Your task to perform on an android device: How much does a 2 bedroom apartment rent for in Denver? Image 0: 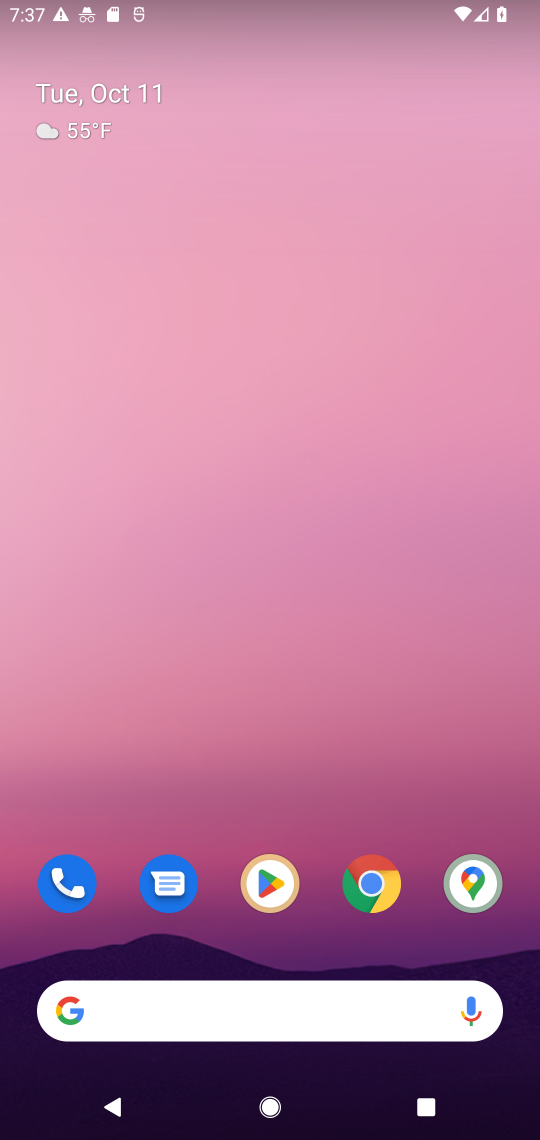
Step 0: drag from (312, 968) to (246, 41)
Your task to perform on an android device: How much does a 2 bedroom apartment rent for in Denver? Image 1: 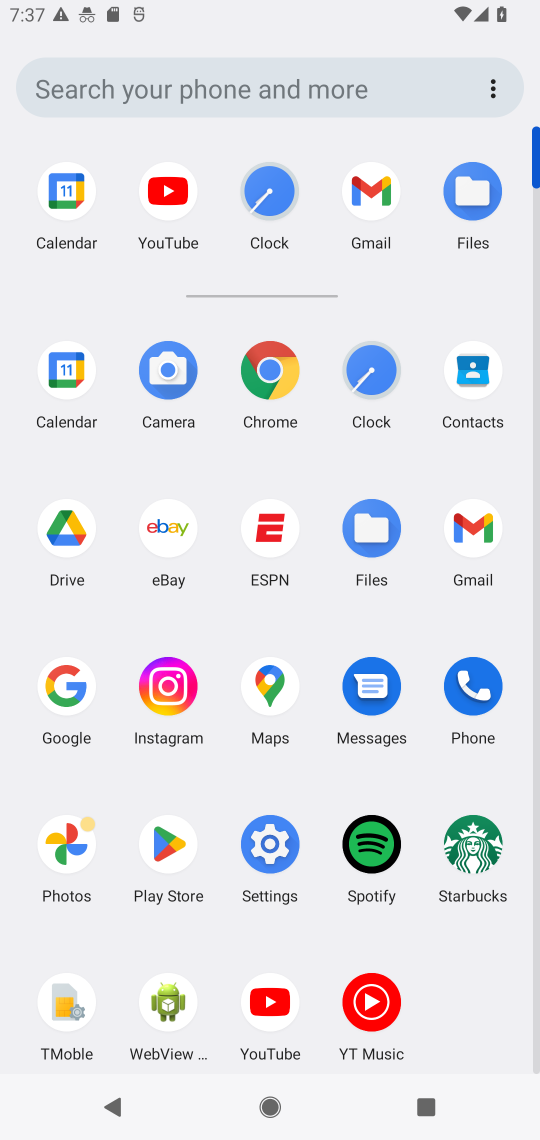
Step 1: click (276, 380)
Your task to perform on an android device: How much does a 2 bedroom apartment rent for in Denver? Image 2: 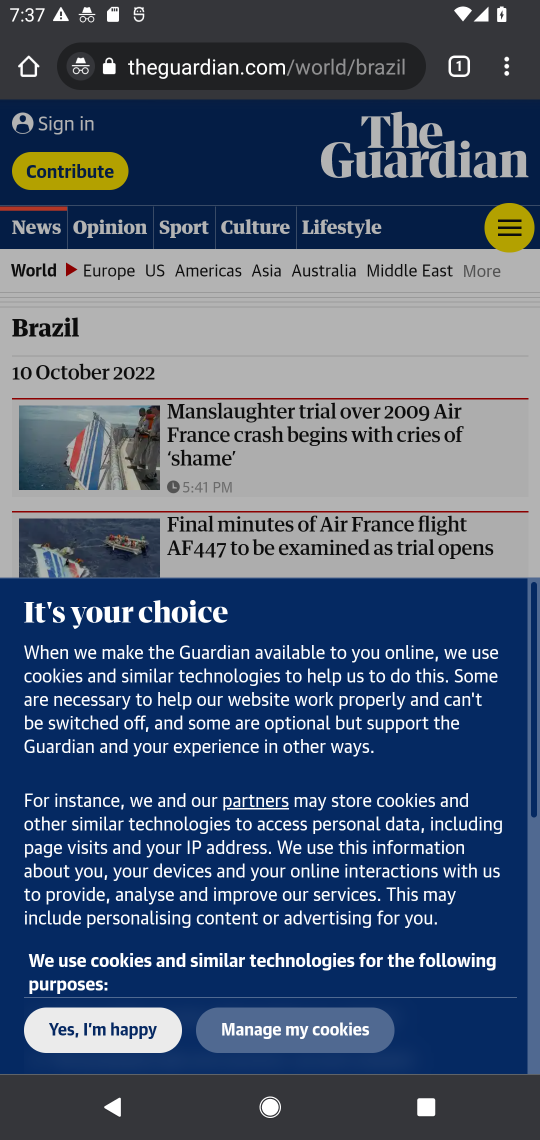
Step 2: click (297, 53)
Your task to perform on an android device: How much does a 2 bedroom apartment rent for in Denver? Image 3: 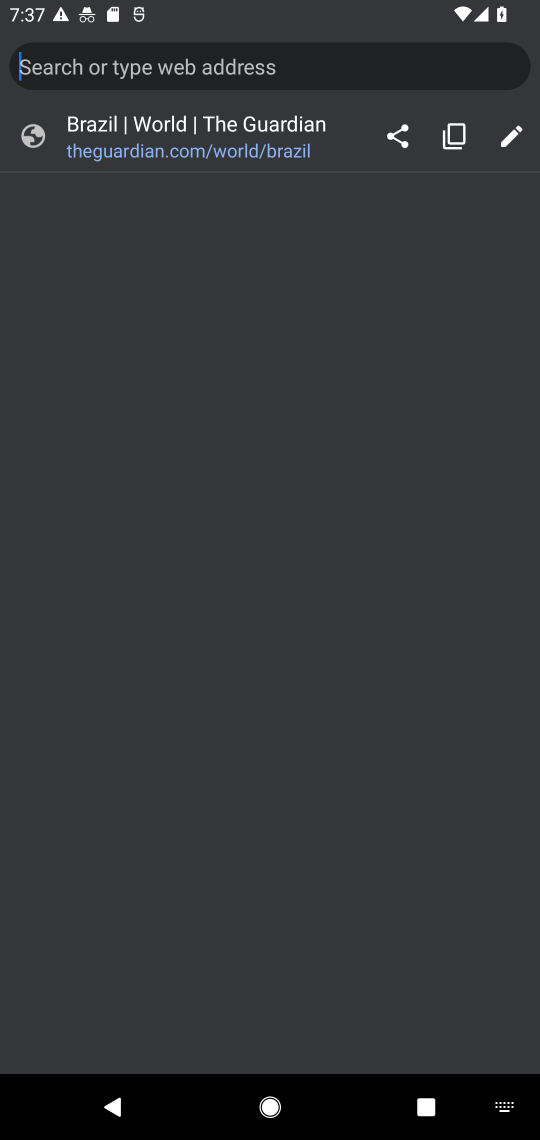
Step 3: type "How much does a  2 bedroom apartment rent for in Denver?"
Your task to perform on an android device: How much does a 2 bedroom apartment rent for in Denver? Image 4: 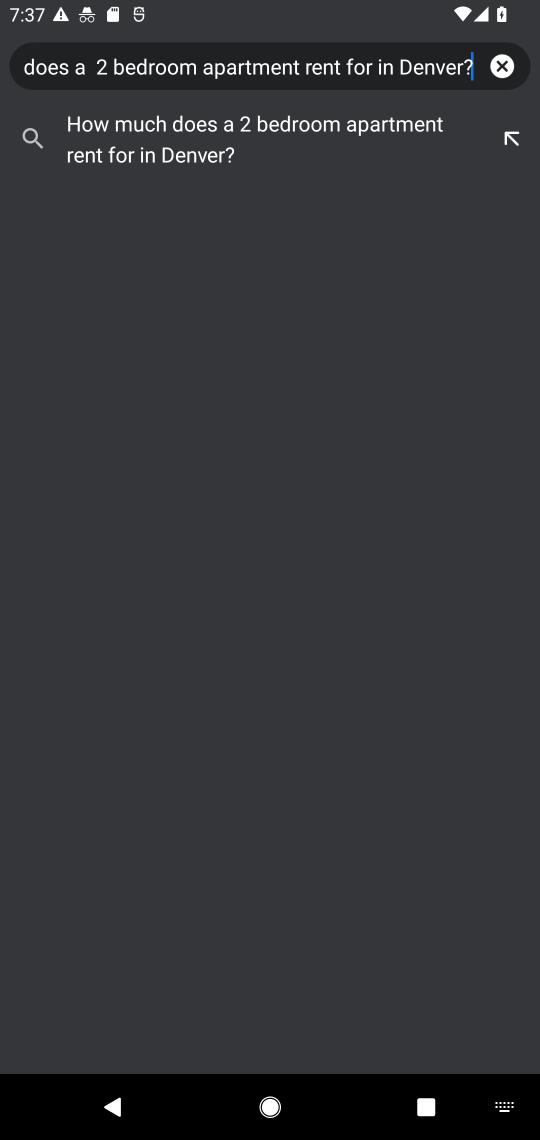
Step 4: press enter
Your task to perform on an android device: How much does a 2 bedroom apartment rent for in Denver? Image 5: 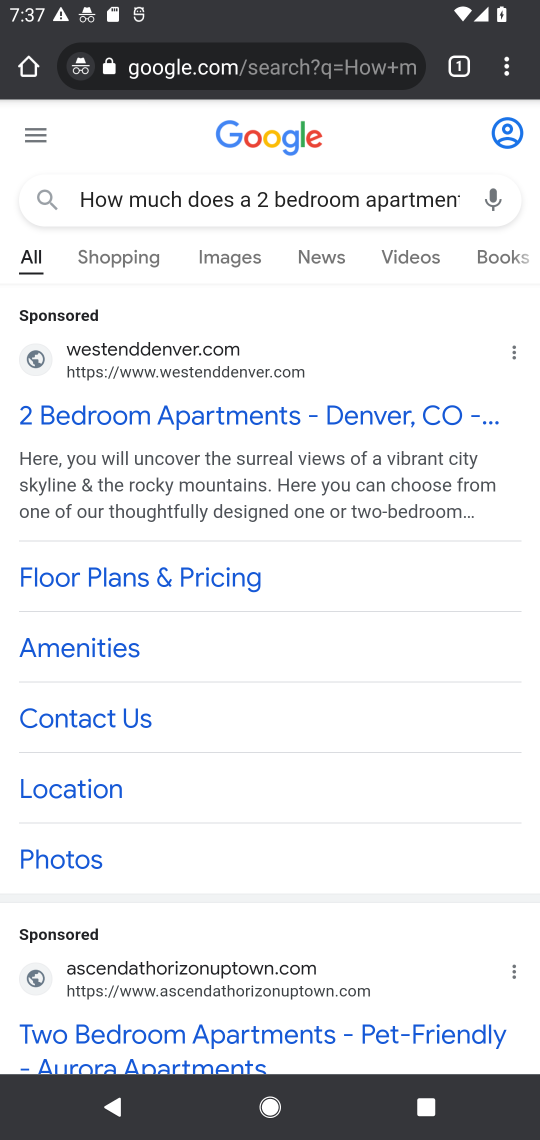
Step 5: task complete